Your task to perform on an android device: turn off picture-in-picture Image 0: 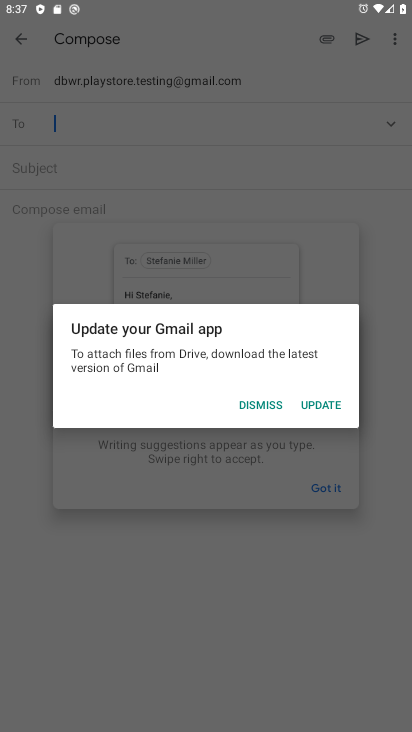
Step 0: click (266, 397)
Your task to perform on an android device: turn off picture-in-picture Image 1: 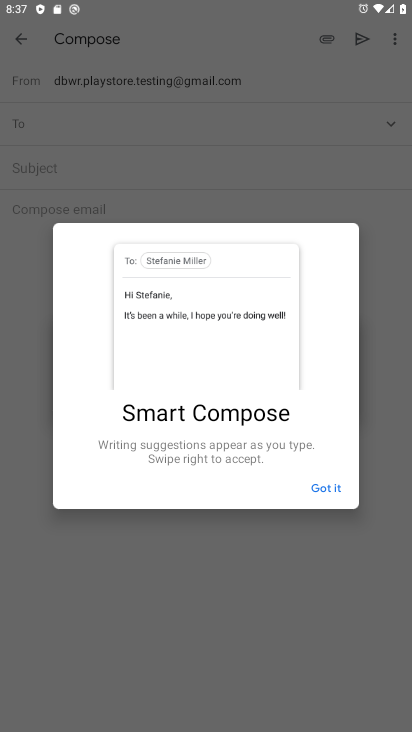
Step 1: click (335, 483)
Your task to perform on an android device: turn off picture-in-picture Image 2: 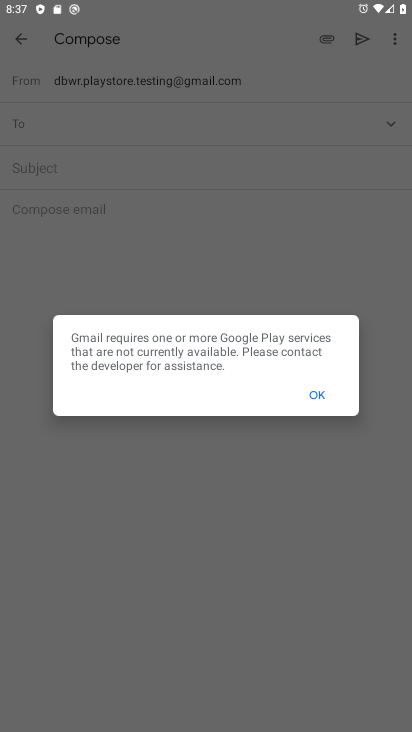
Step 2: click (318, 397)
Your task to perform on an android device: turn off picture-in-picture Image 3: 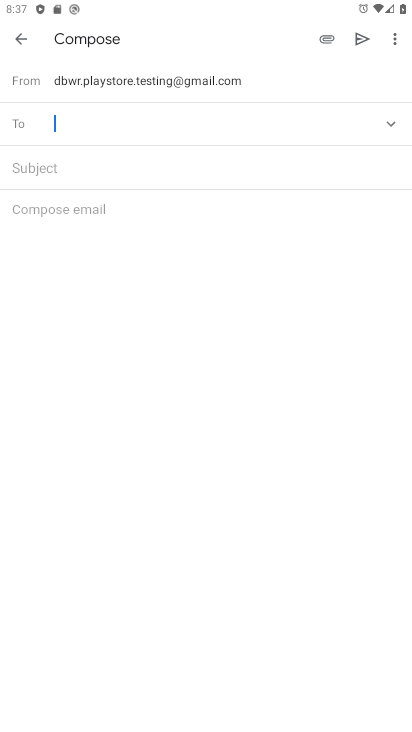
Step 3: press home button
Your task to perform on an android device: turn off picture-in-picture Image 4: 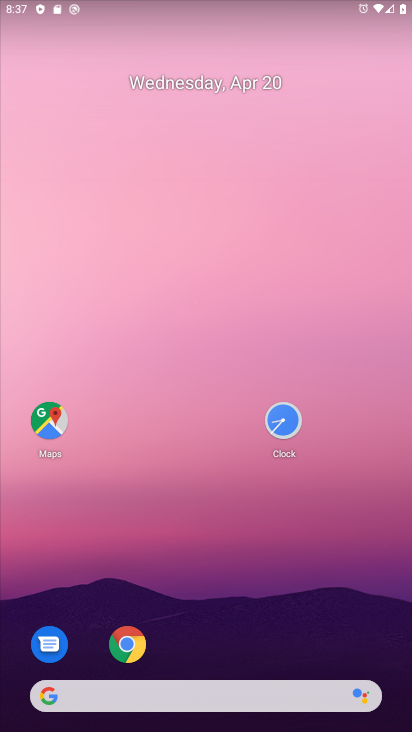
Step 4: drag from (206, 684) to (235, 80)
Your task to perform on an android device: turn off picture-in-picture Image 5: 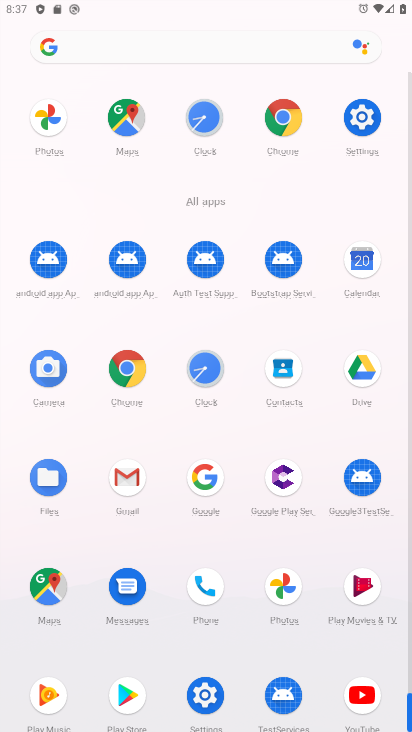
Step 5: click (354, 111)
Your task to perform on an android device: turn off picture-in-picture Image 6: 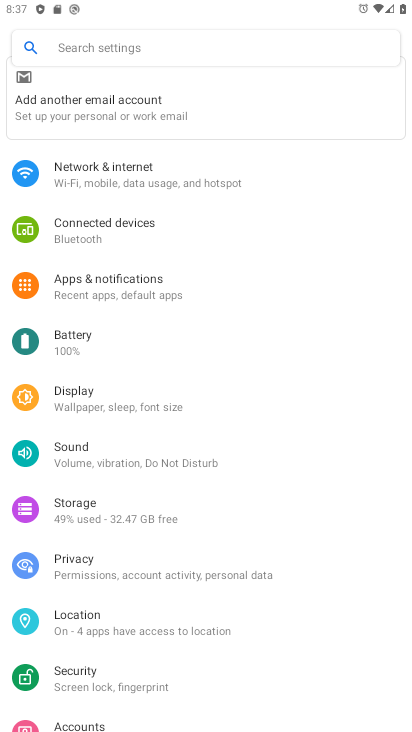
Step 6: click (147, 284)
Your task to perform on an android device: turn off picture-in-picture Image 7: 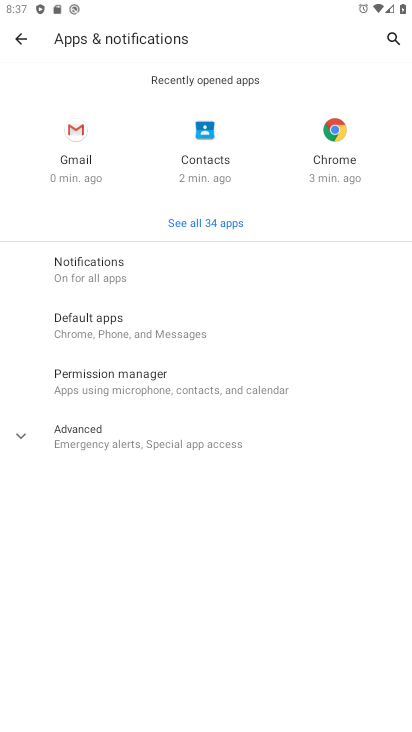
Step 7: click (112, 429)
Your task to perform on an android device: turn off picture-in-picture Image 8: 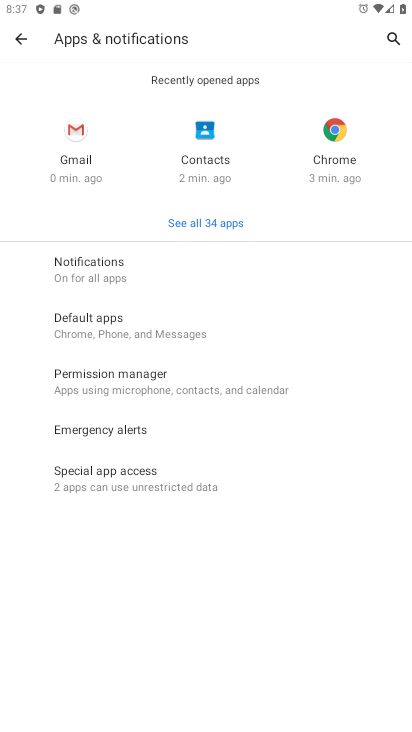
Step 8: click (162, 493)
Your task to perform on an android device: turn off picture-in-picture Image 9: 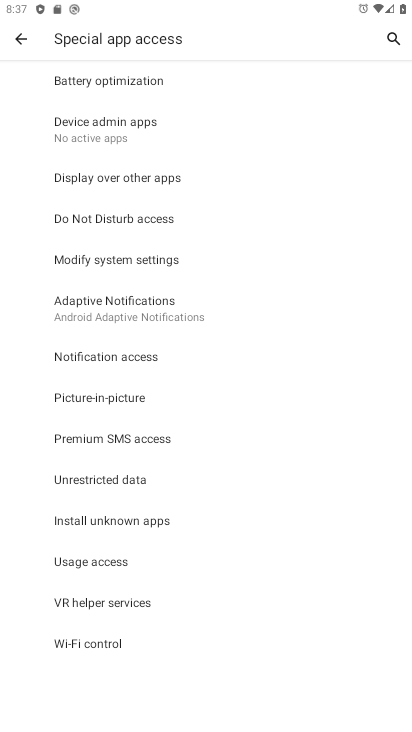
Step 9: click (105, 399)
Your task to perform on an android device: turn off picture-in-picture Image 10: 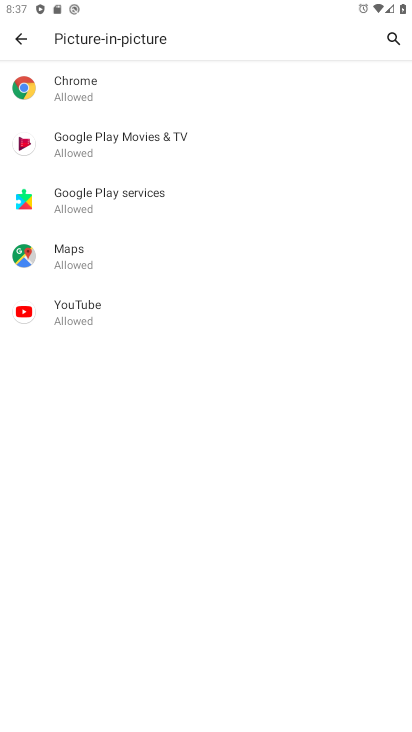
Step 10: click (67, 71)
Your task to perform on an android device: turn off picture-in-picture Image 11: 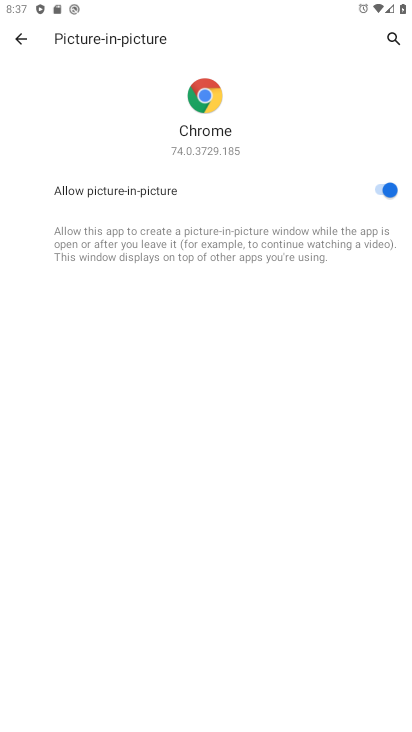
Step 11: click (380, 181)
Your task to perform on an android device: turn off picture-in-picture Image 12: 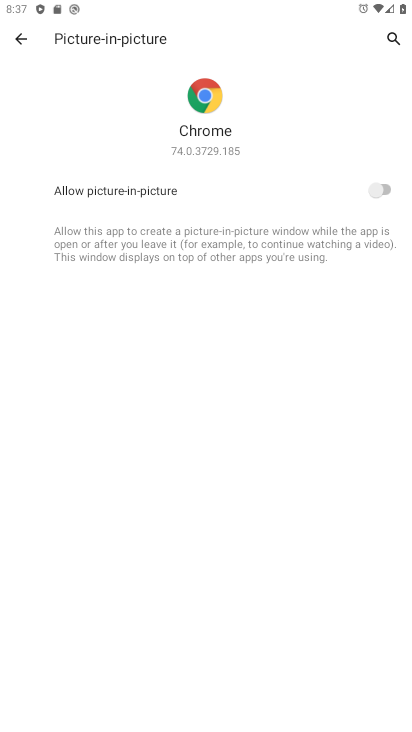
Step 12: click (21, 42)
Your task to perform on an android device: turn off picture-in-picture Image 13: 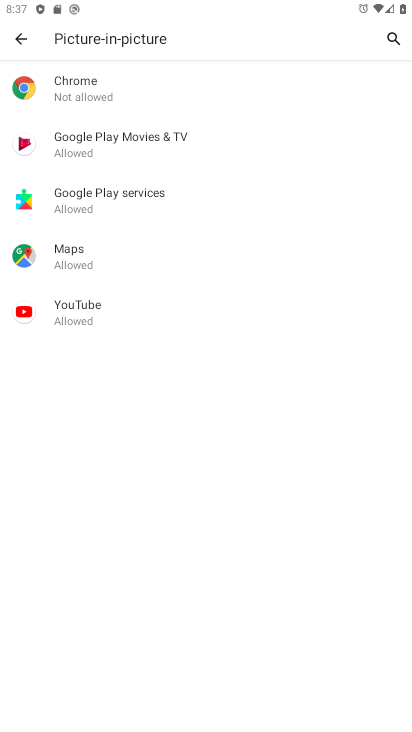
Step 13: click (91, 145)
Your task to perform on an android device: turn off picture-in-picture Image 14: 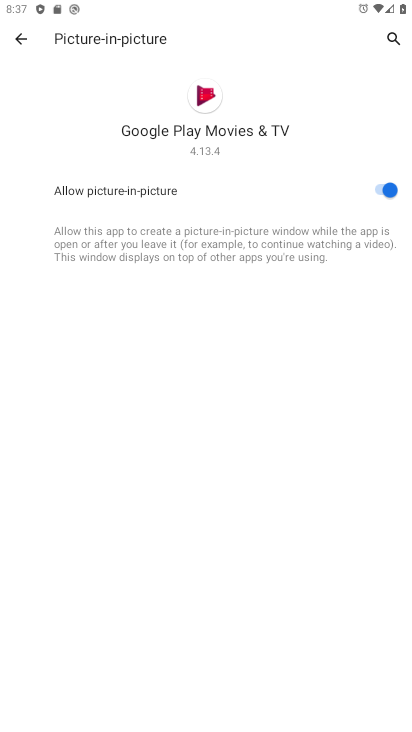
Step 14: click (373, 191)
Your task to perform on an android device: turn off picture-in-picture Image 15: 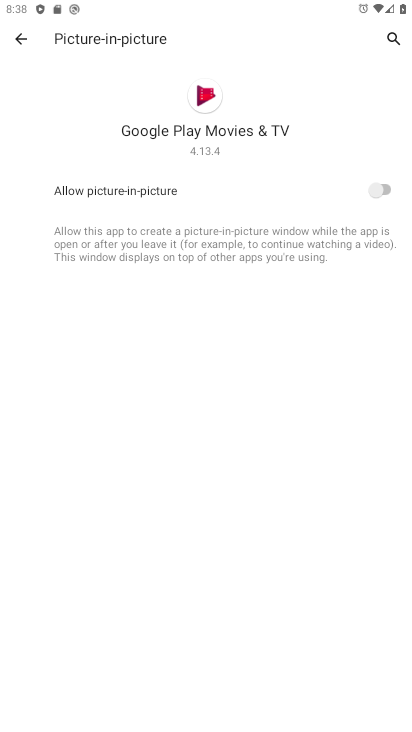
Step 15: click (24, 39)
Your task to perform on an android device: turn off picture-in-picture Image 16: 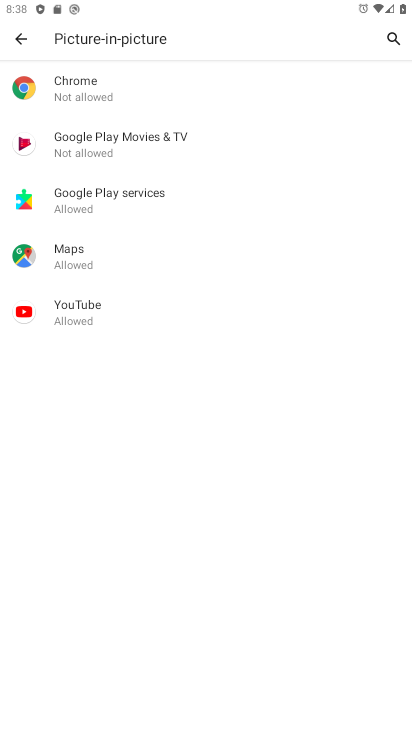
Step 16: click (108, 196)
Your task to perform on an android device: turn off picture-in-picture Image 17: 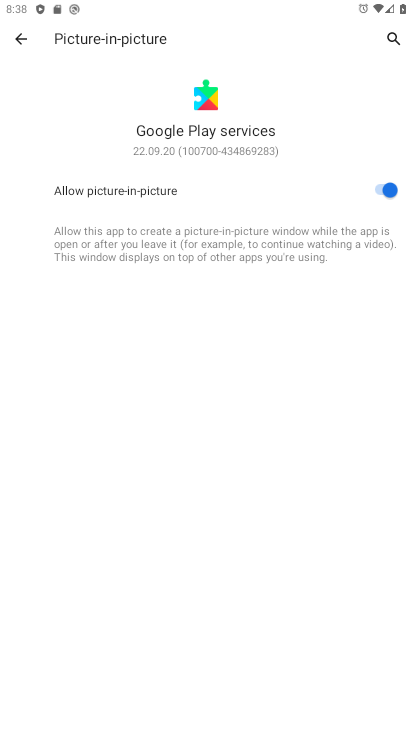
Step 17: click (379, 191)
Your task to perform on an android device: turn off picture-in-picture Image 18: 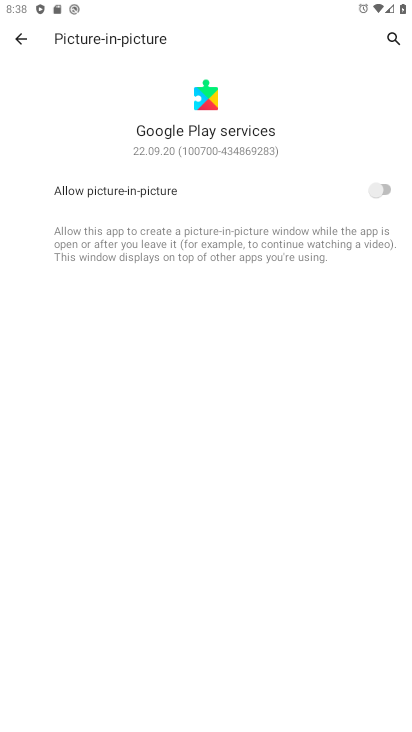
Step 18: click (17, 42)
Your task to perform on an android device: turn off picture-in-picture Image 19: 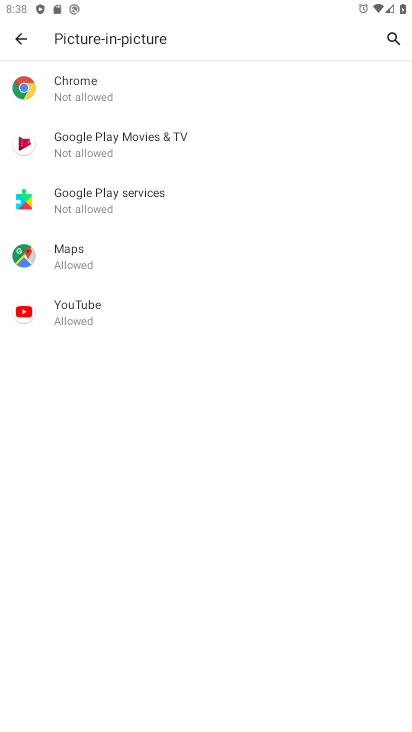
Step 19: click (72, 267)
Your task to perform on an android device: turn off picture-in-picture Image 20: 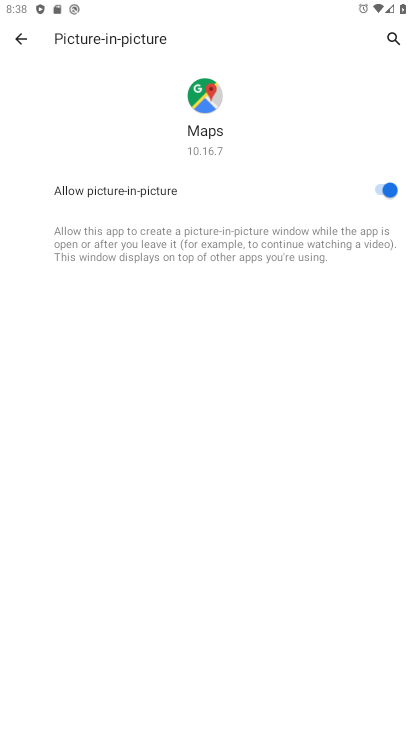
Step 20: click (383, 187)
Your task to perform on an android device: turn off picture-in-picture Image 21: 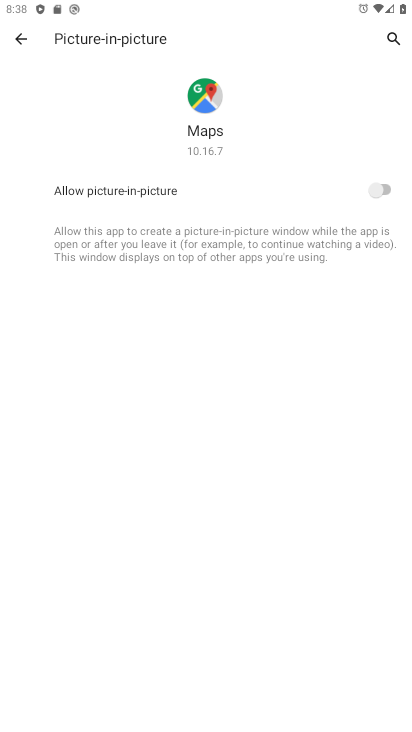
Step 21: click (18, 40)
Your task to perform on an android device: turn off picture-in-picture Image 22: 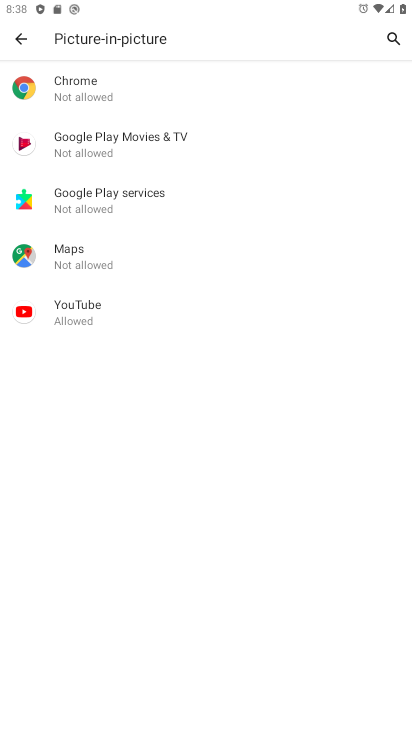
Step 22: click (65, 310)
Your task to perform on an android device: turn off picture-in-picture Image 23: 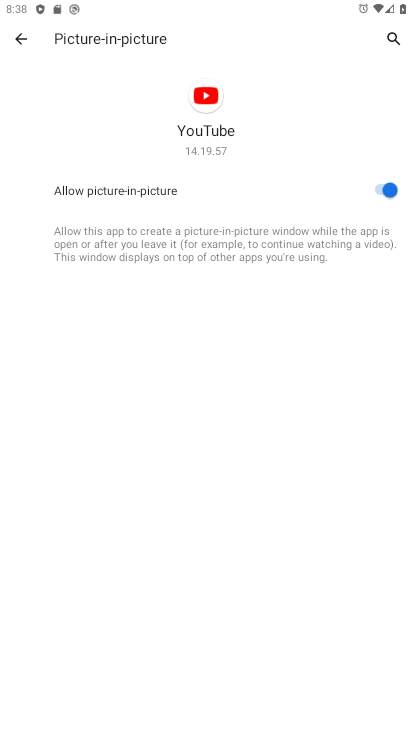
Step 23: click (387, 186)
Your task to perform on an android device: turn off picture-in-picture Image 24: 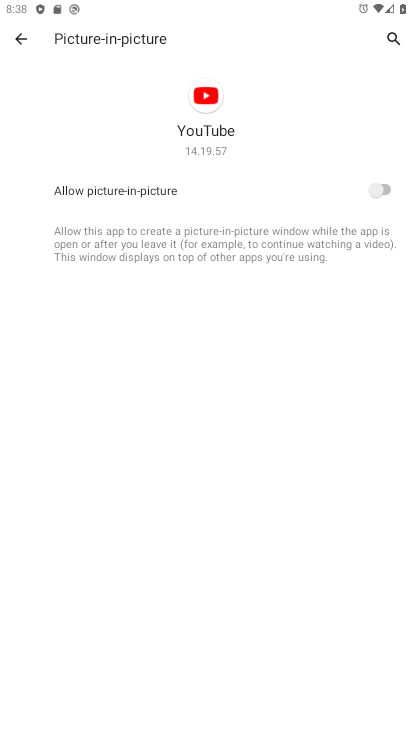
Step 24: task complete